Your task to perform on an android device: Open a new incognito window in the chrome app Image 0: 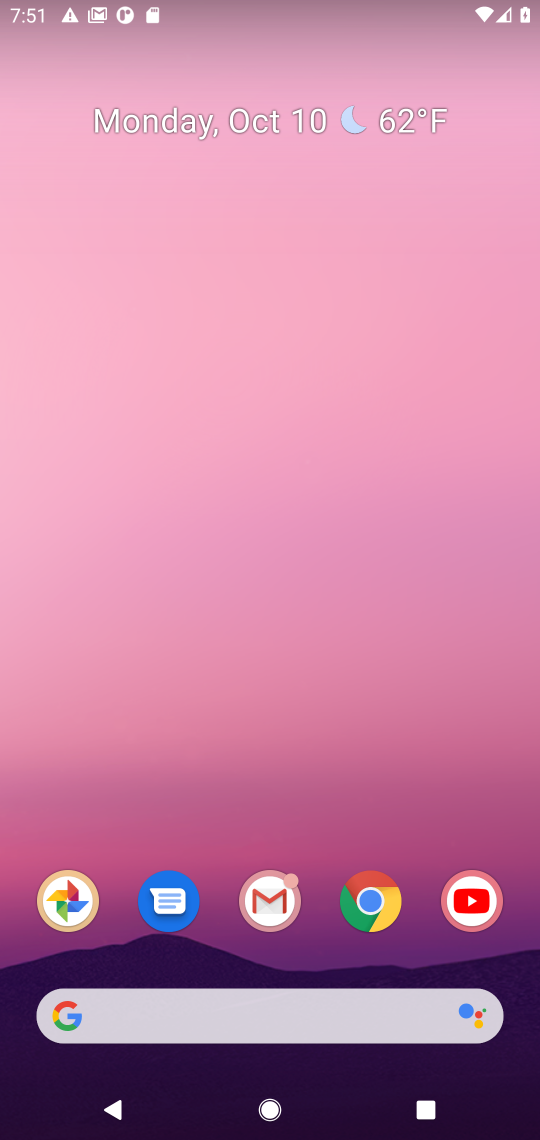
Step 0: drag from (378, 958) to (381, 178)
Your task to perform on an android device: Open a new incognito window in the chrome app Image 1: 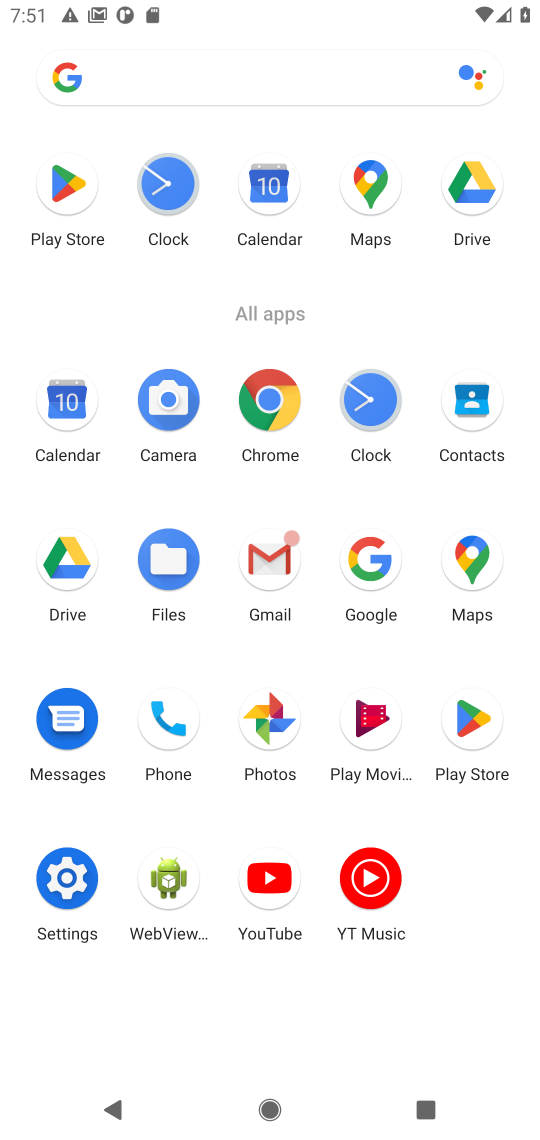
Step 1: click (264, 412)
Your task to perform on an android device: Open a new incognito window in the chrome app Image 2: 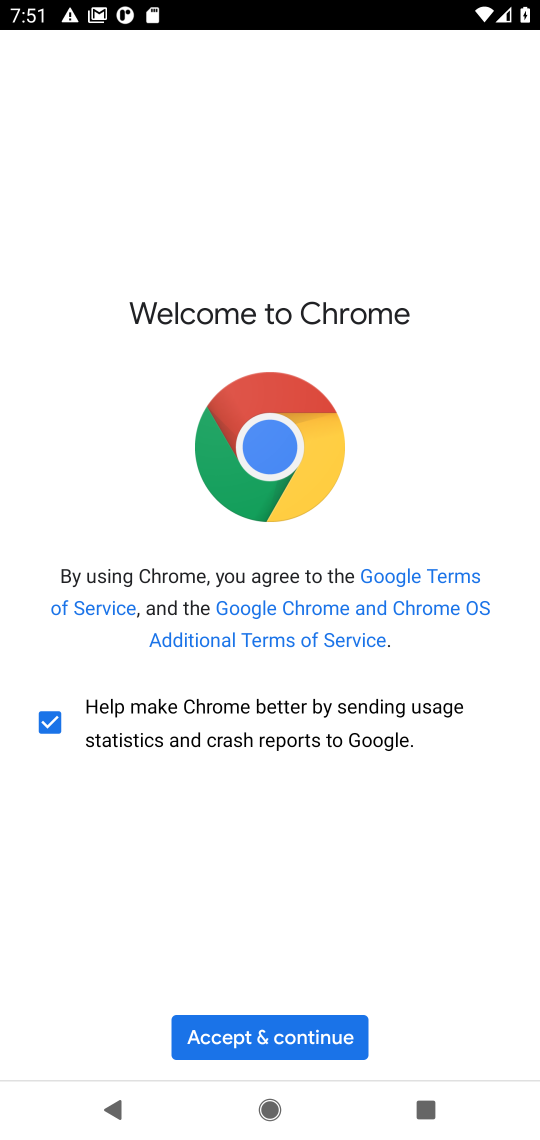
Step 2: click (239, 1039)
Your task to perform on an android device: Open a new incognito window in the chrome app Image 3: 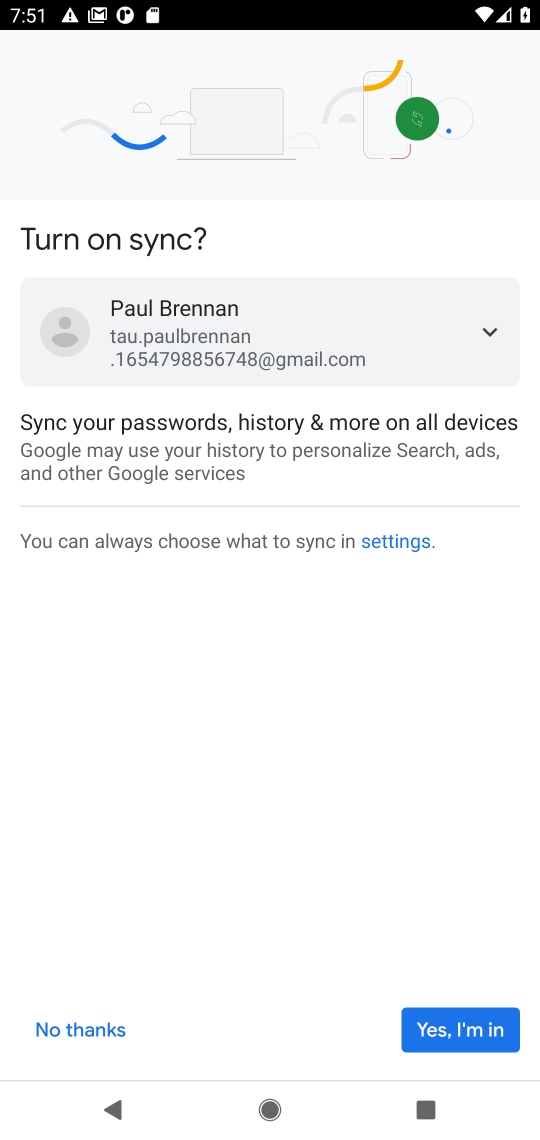
Step 3: click (432, 1044)
Your task to perform on an android device: Open a new incognito window in the chrome app Image 4: 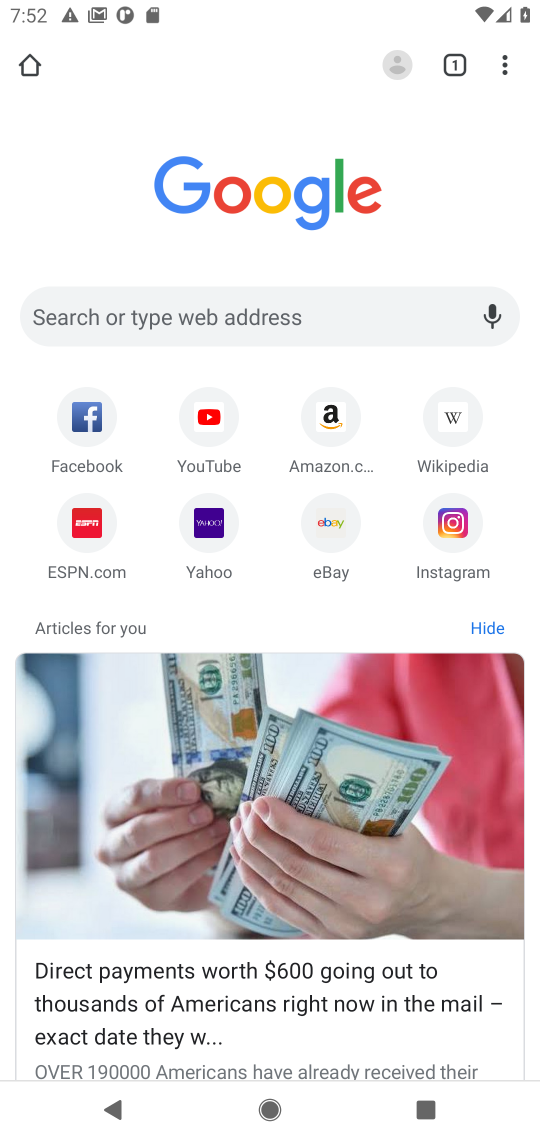
Step 4: click (505, 67)
Your task to perform on an android device: Open a new incognito window in the chrome app Image 5: 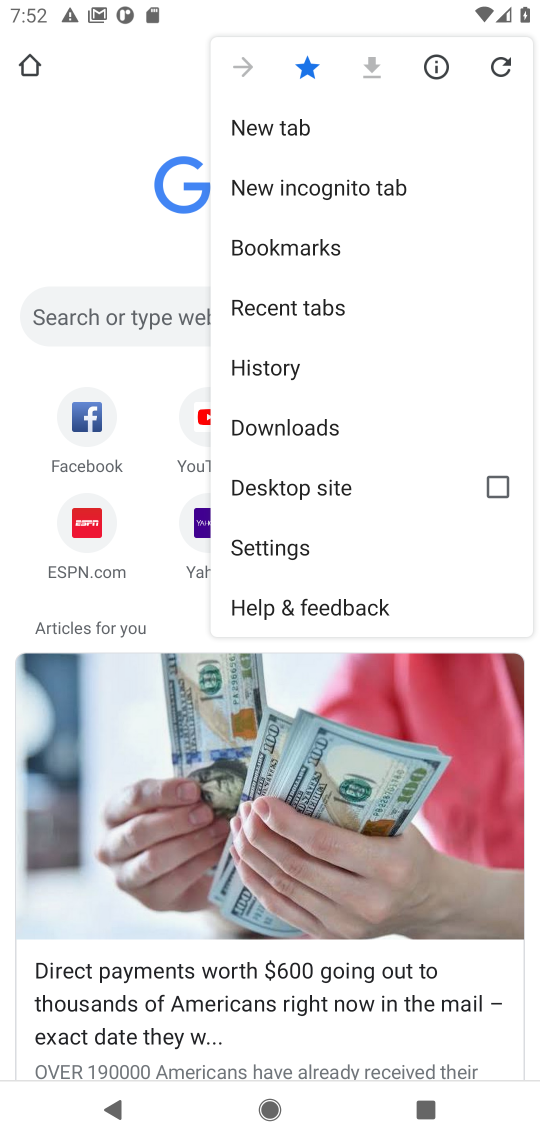
Step 5: click (414, 195)
Your task to perform on an android device: Open a new incognito window in the chrome app Image 6: 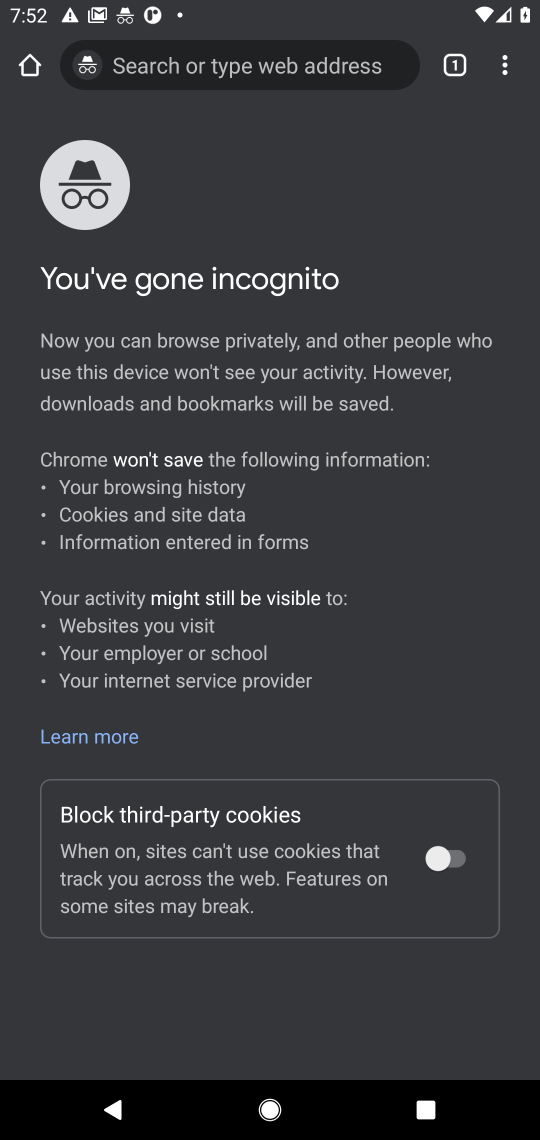
Step 6: task complete